Your task to perform on an android device: Open battery settings Image 0: 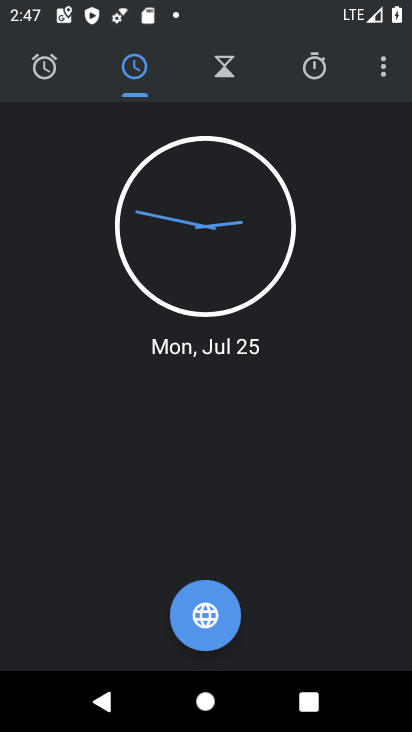
Step 0: click (214, 643)
Your task to perform on an android device: Open battery settings Image 1: 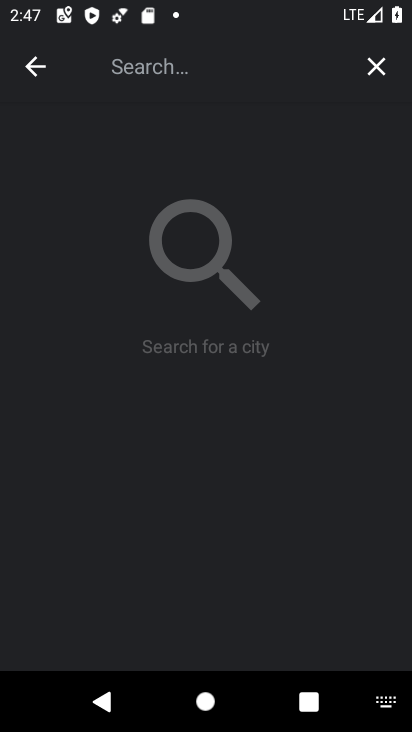
Step 1: press home button
Your task to perform on an android device: Open battery settings Image 2: 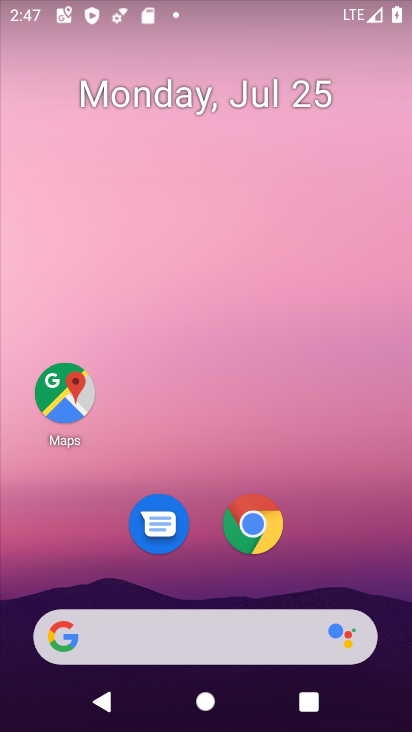
Step 2: drag from (330, 578) to (382, 29)
Your task to perform on an android device: Open battery settings Image 3: 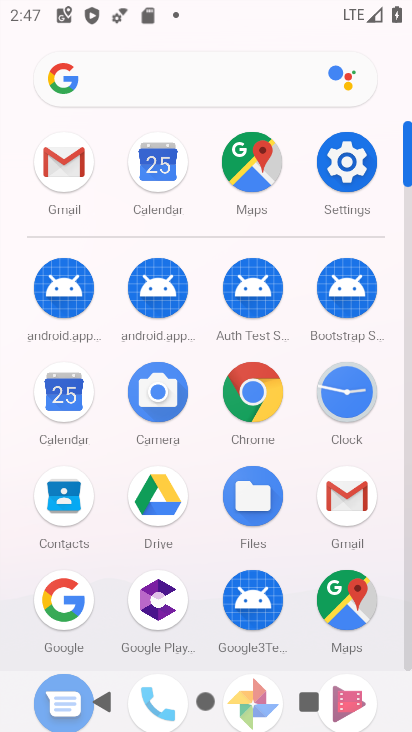
Step 3: click (337, 160)
Your task to perform on an android device: Open battery settings Image 4: 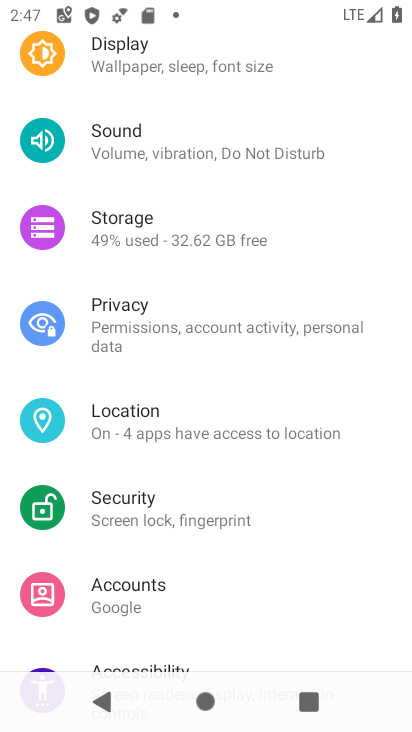
Step 4: drag from (255, 153) to (247, 558)
Your task to perform on an android device: Open battery settings Image 5: 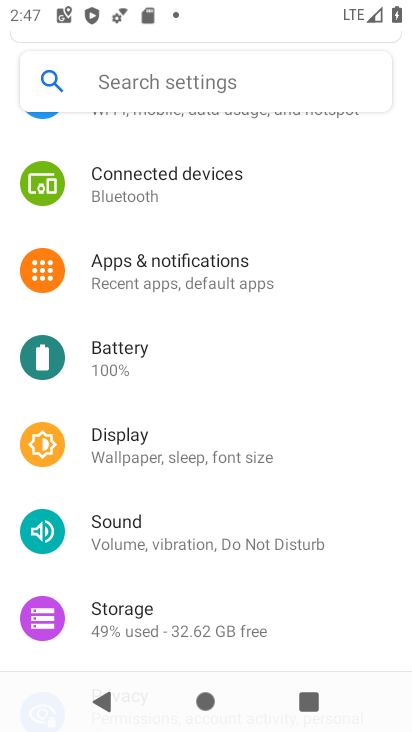
Step 5: click (136, 359)
Your task to perform on an android device: Open battery settings Image 6: 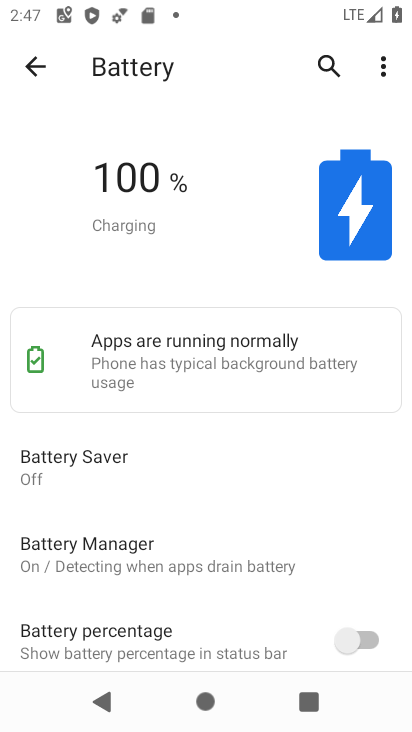
Step 6: task complete